Your task to perform on an android device: set the timer Image 0: 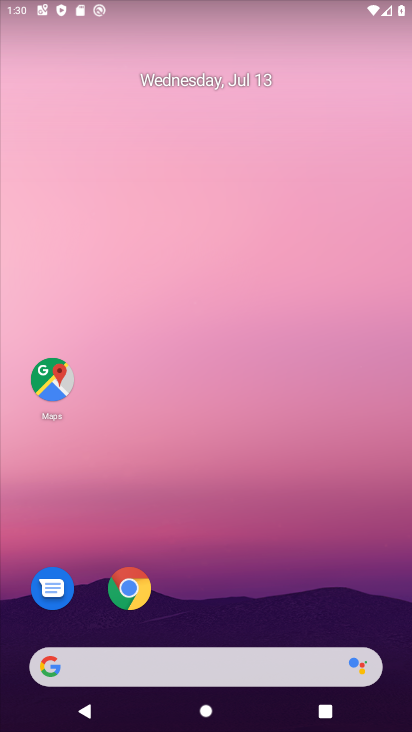
Step 0: drag from (145, 634) to (124, 224)
Your task to perform on an android device: set the timer Image 1: 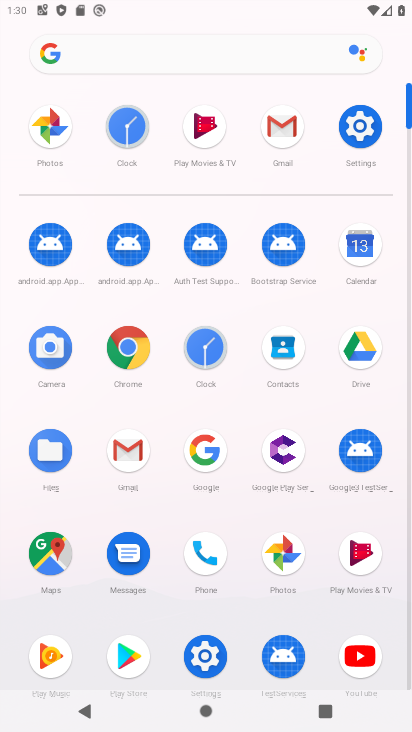
Step 1: click (212, 350)
Your task to perform on an android device: set the timer Image 2: 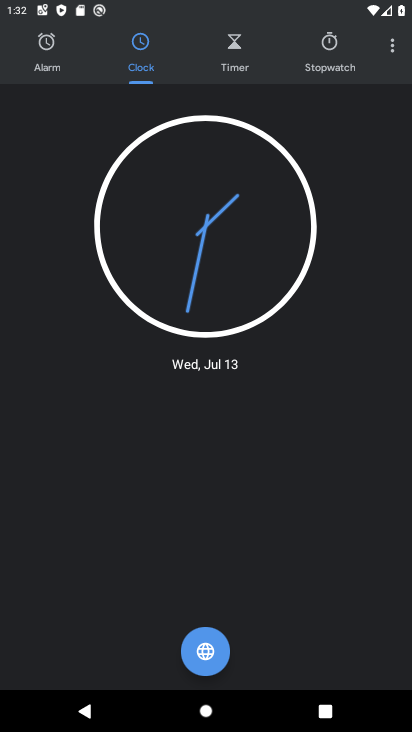
Step 2: click (233, 66)
Your task to perform on an android device: set the timer Image 3: 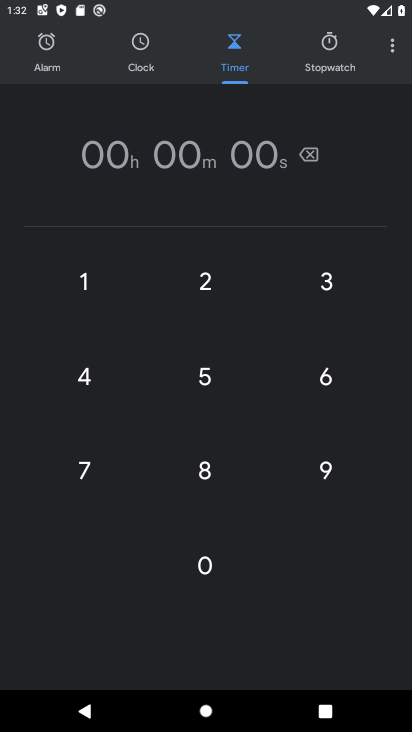
Step 3: click (198, 578)
Your task to perform on an android device: set the timer Image 4: 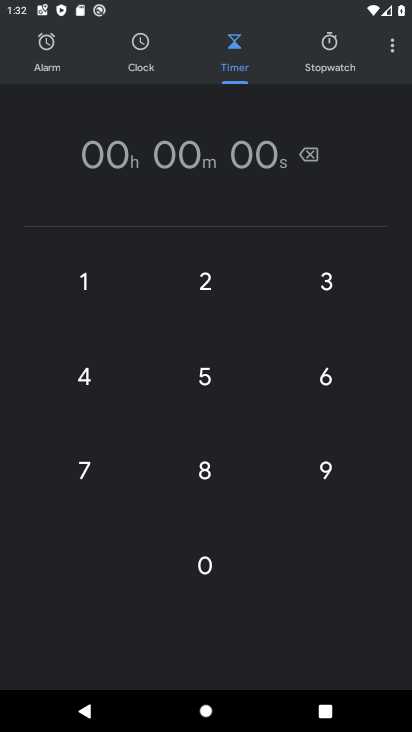
Step 4: click (109, 287)
Your task to perform on an android device: set the timer Image 5: 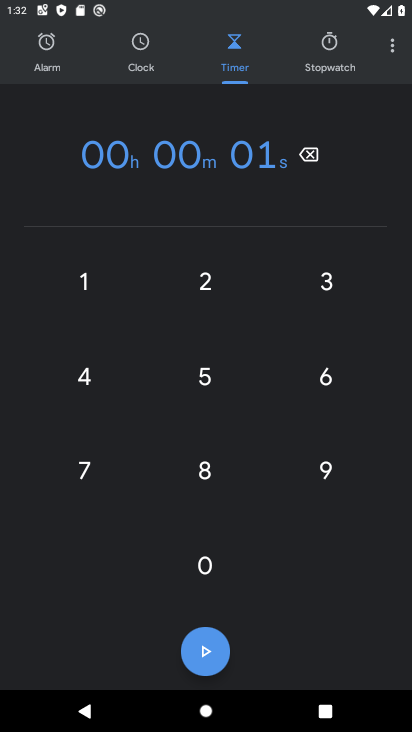
Step 5: click (205, 655)
Your task to perform on an android device: set the timer Image 6: 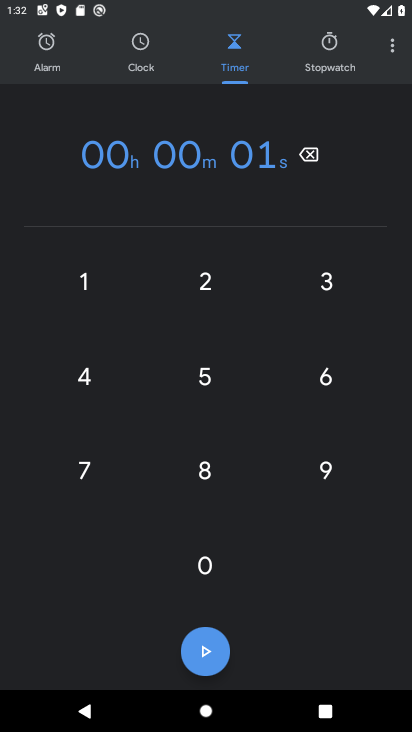
Step 6: click (205, 655)
Your task to perform on an android device: set the timer Image 7: 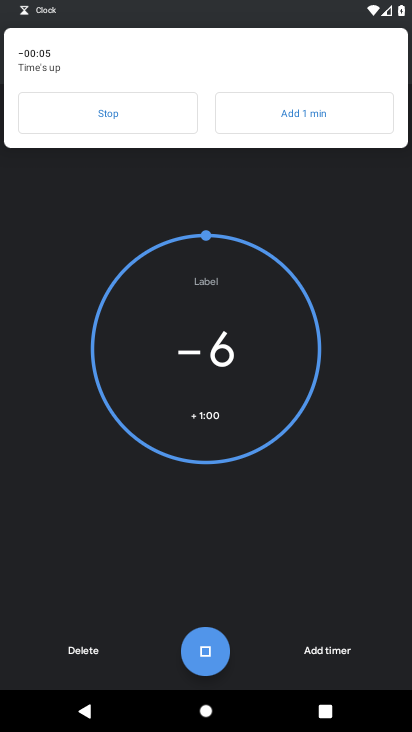
Step 7: task complete